Your task to perform on an android device: turn notification dots off Image 0: 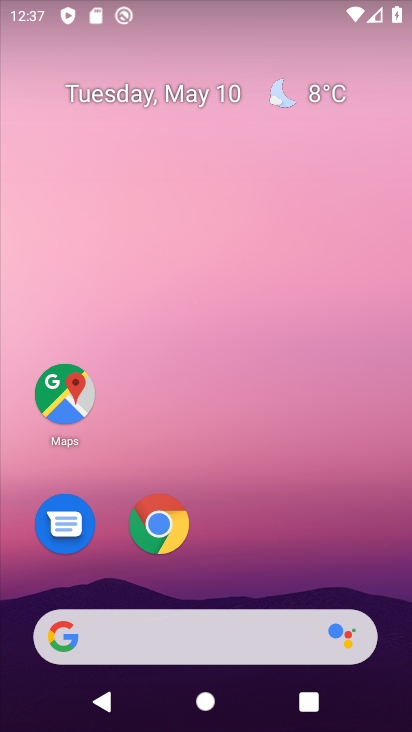
Step 0: drag from (272, 550) to (257, 198)
Your task to perform on an android device: turn notification dots off Image 1: 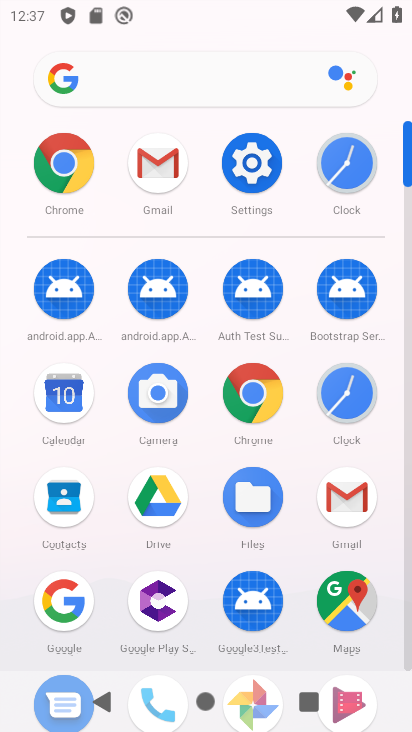
Step 1: click (257, 163)
Your task to perform on an android device: turn notification dots off Image 2: 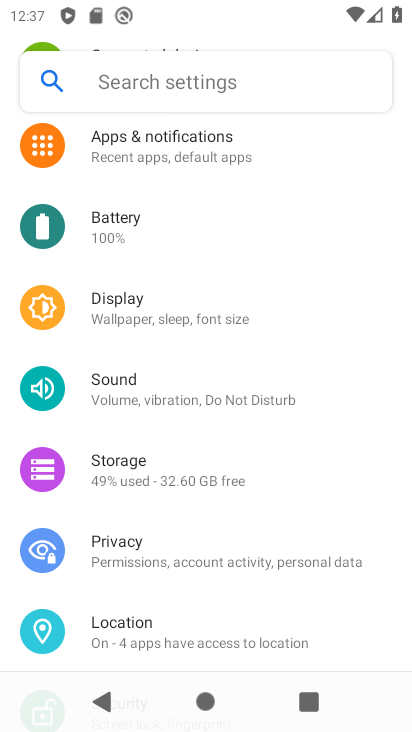
Step 2: click (231, 145)
Your task to perform on an android device: turn notification dots off Image 3: 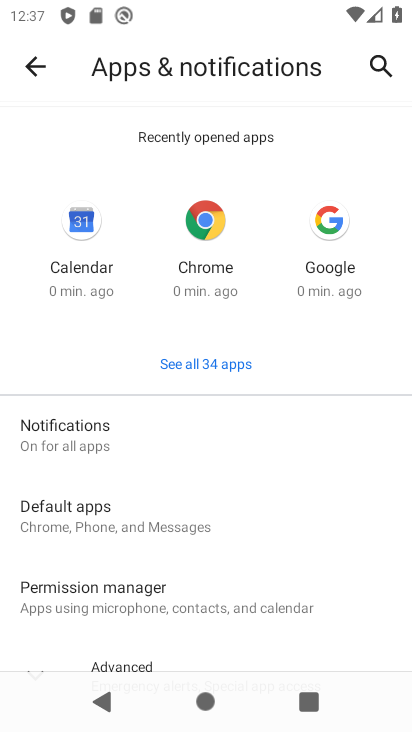
Step 3: click (102, 430)
Your task to perform on an android device: turn notification dots off Image 4: 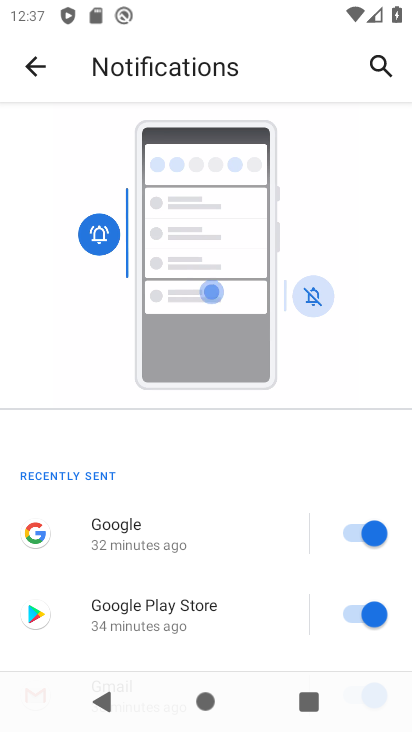
Step 4: drag from (295, 552) to (290, 285)
Your task to perform on an android device: turn notification dots off Image 5: 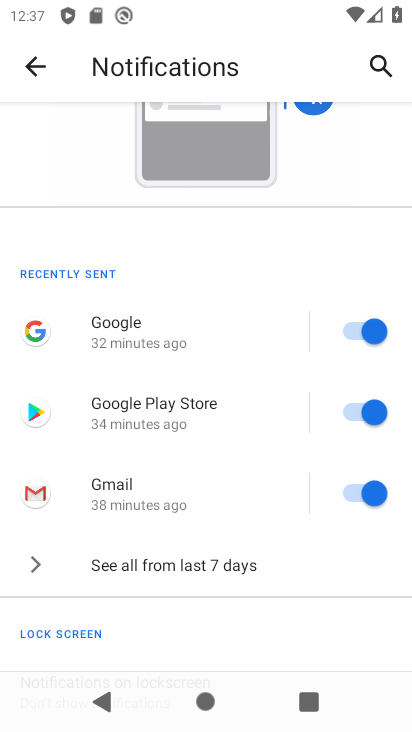
Step 5: drag from (290, 285) to (293, 132)
Your task to perform on an android device: turn notification dots off Image 6: 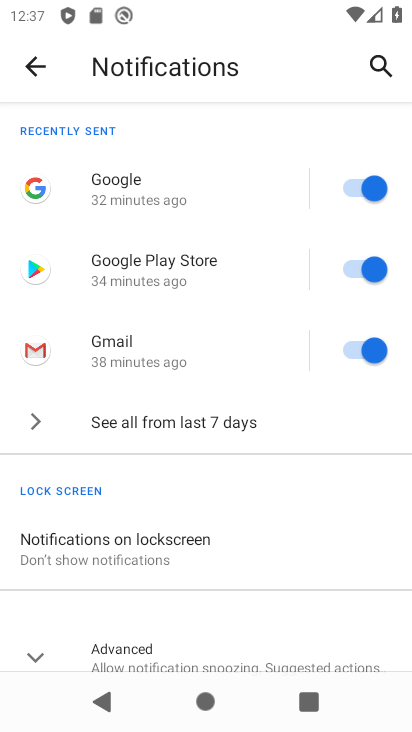
Step 6: click (27, 653)
Your task to perform on an android device: turn notification dots off Image 7: 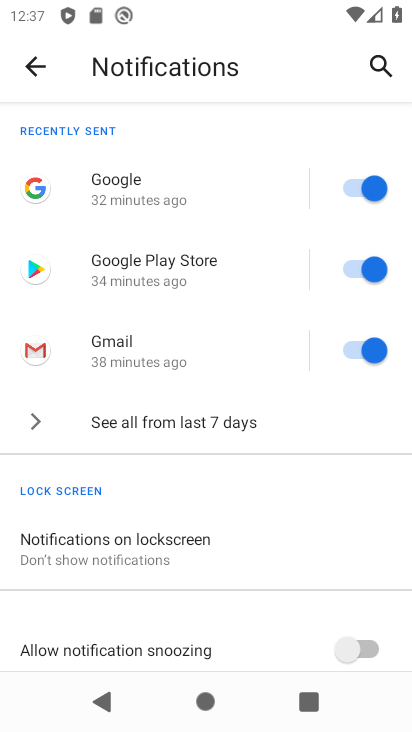
Step 7: task complete